Your task to perform on an android device: allow cookies in the chrome app Image 0: 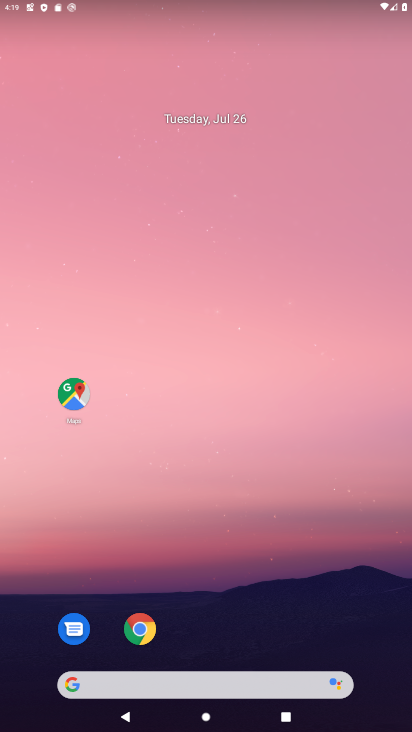
Step 0: click (133, 637)
Your task to perform on an android device: allow cookies in the chrome app Image 1: 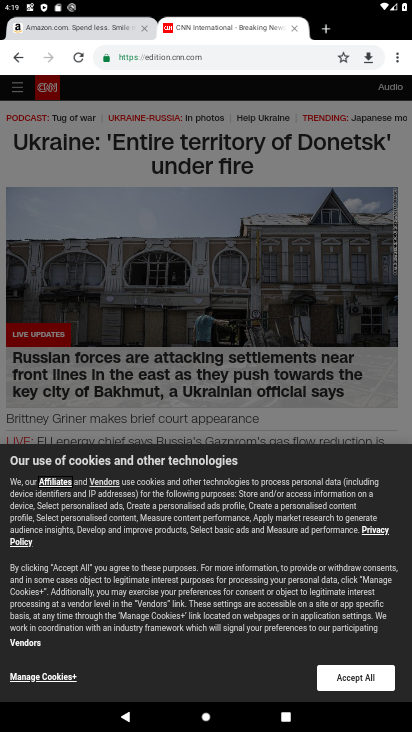
Step 1: click (133, 637)
Your task to perform on an android device: allow cookies in the chrome app Image 2: 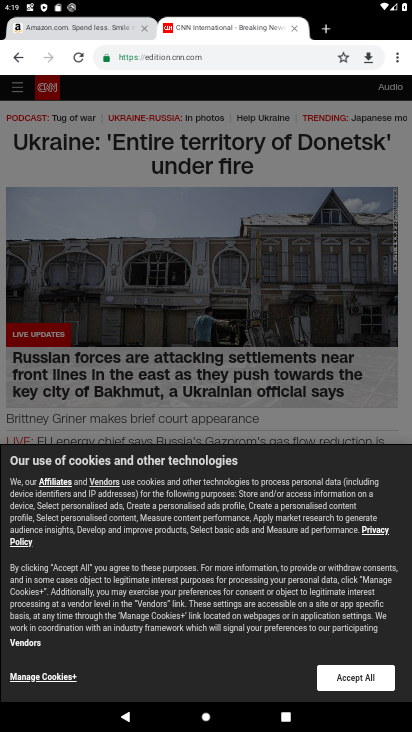
Step 2: click (399, 60)
Your task to perform on an android device: allow cookies in the chrome app Image 3: 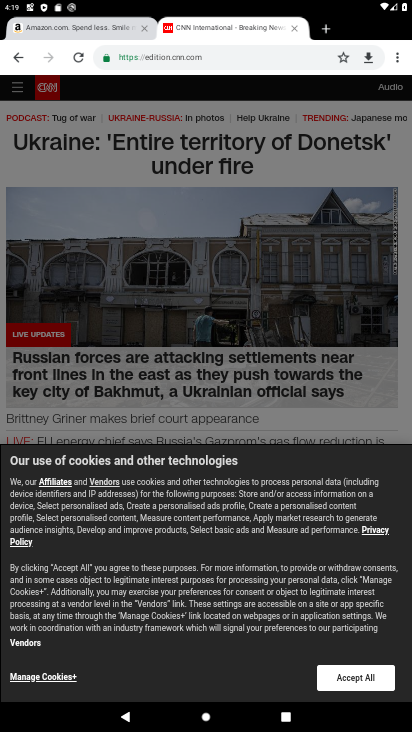
Step 3: click (399, 60)
Your task to perform on an android device: allow cookies in the chrome app Image 4: 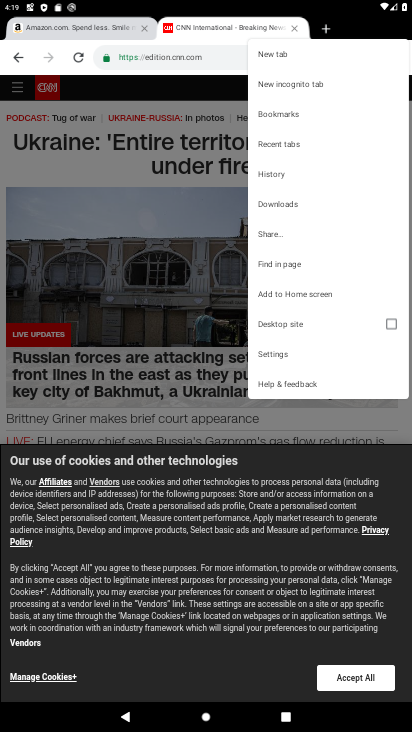
Step 4: click (285, 351)
Your task to perform on an android device: allow cookies in the chrome app Image 5: 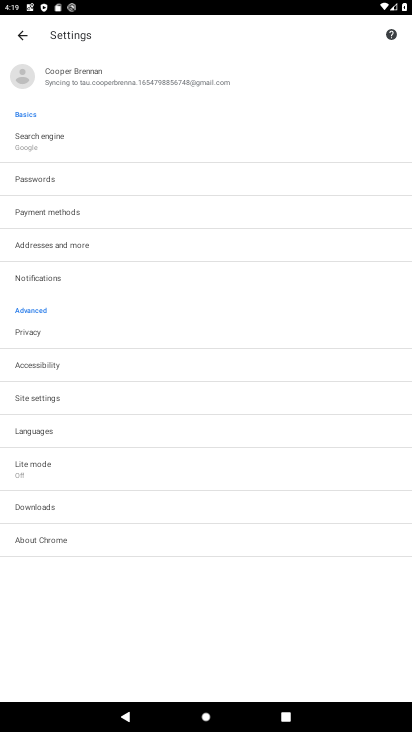
Step 5: click (32, 400)
Your task to perform on an android device: allow cookies in the chrome app Image 6: 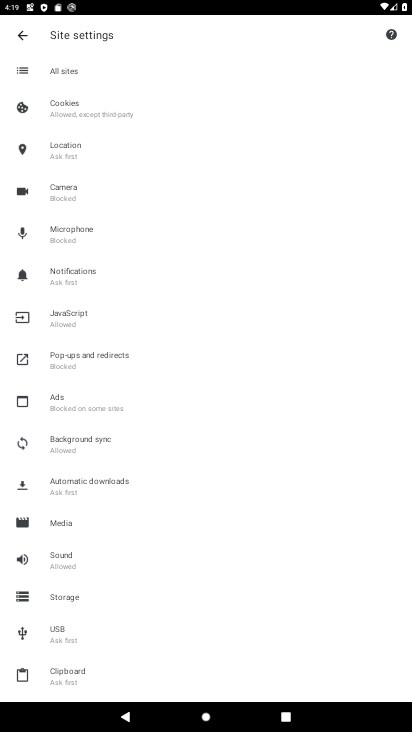
Step 6: click (80, 111)
Your task to perform on an android device: allow cookies in the chrome app Image 7: 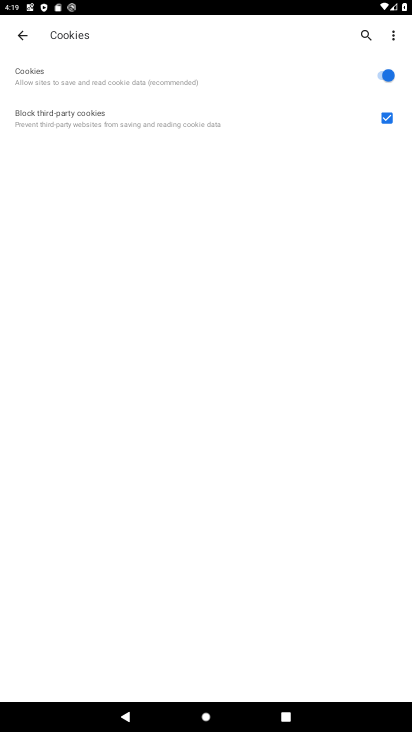
Step 7: click (389, 117)
Your task to perform on an android device: allow cookies in the chrome app Image 8: 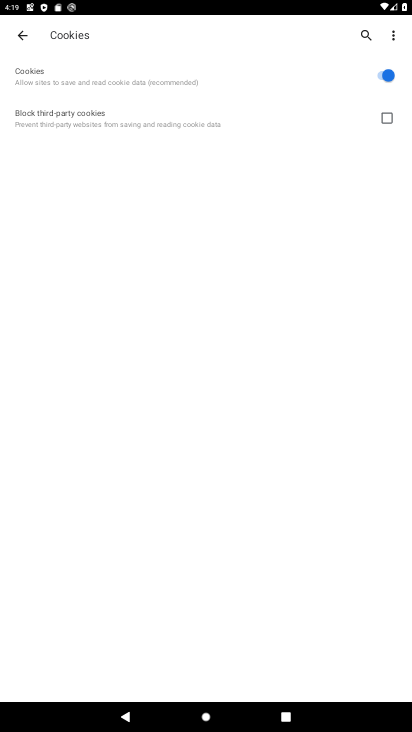
Step 8: task complete